Your task to perform on an android device: When is my next meeting? Image 0: 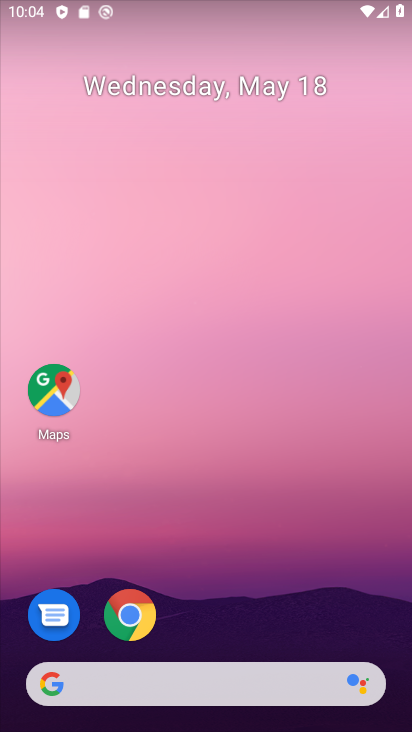
Step 0: click (238, 105)
Your task to perform on an android device: When is my next meeting? Image 1: 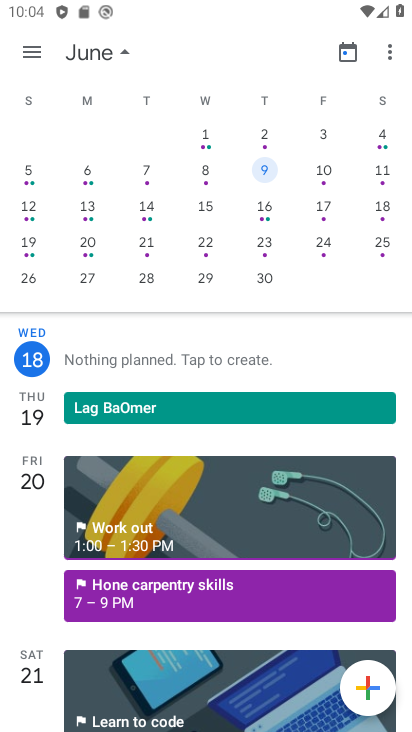
Step 1: task complete